Your task to perform on an android device: make emails show in primary in the gmail app Image 0: 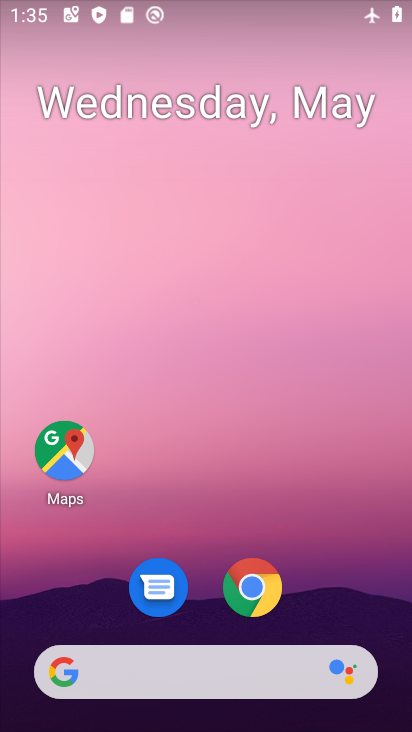
Step 0: drag from (324, 622) to (266, 97)
Your task to perform on an android device: make emails show in primary in the gmail app Image 1: 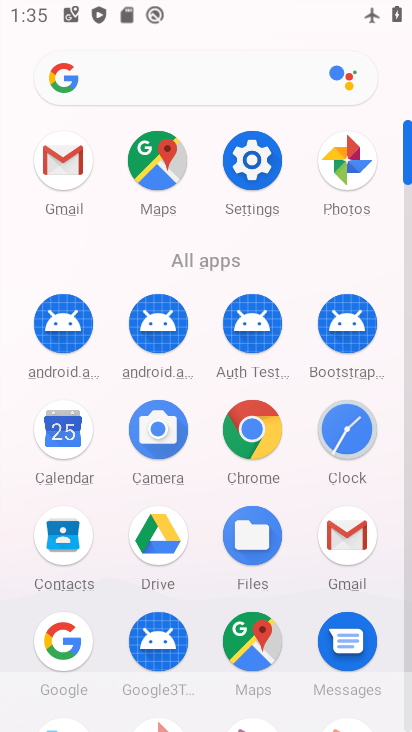
Step 1: click (267, 96)
Your task to perform on an android device: make emails show in primary in the gmail app Image 2: 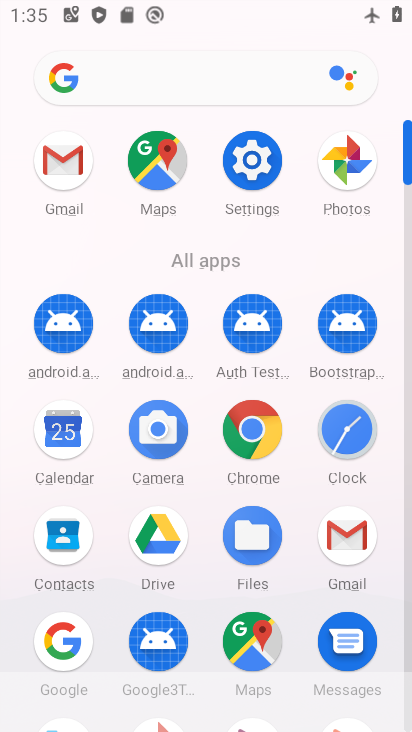
Step 2: click (344, 538)
Your task to perform on an android device: make emails show in primary in the gmail app Image 3: 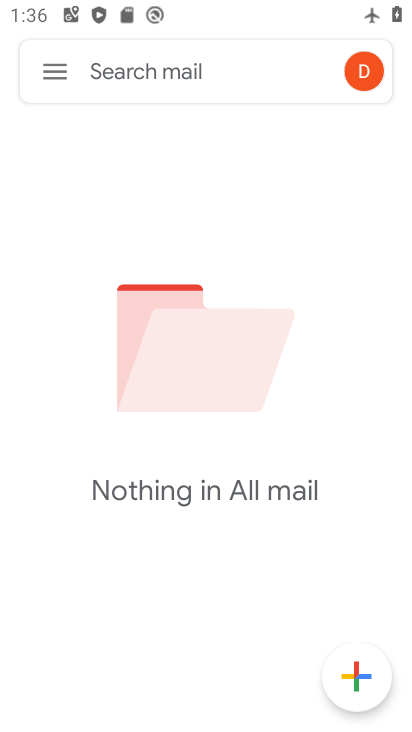
Step 3: click (54, 61)
Your task to perform on an android device: make emails show in primary in the gmail app Image 4: 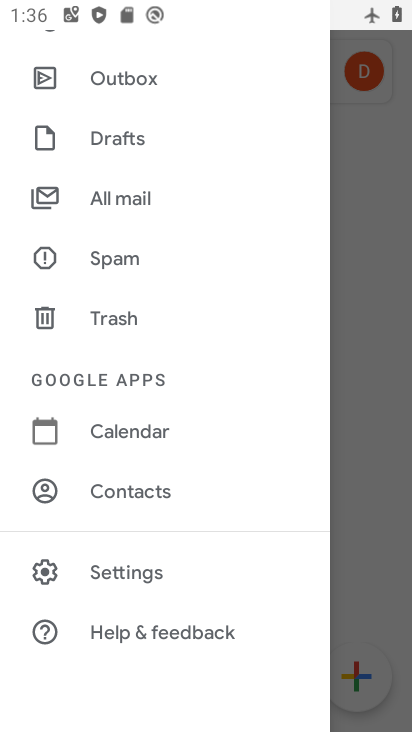
Step 4: click (160, 566)
Your task to perform on an android device: make emails show in primary in the gmail app Image 5: 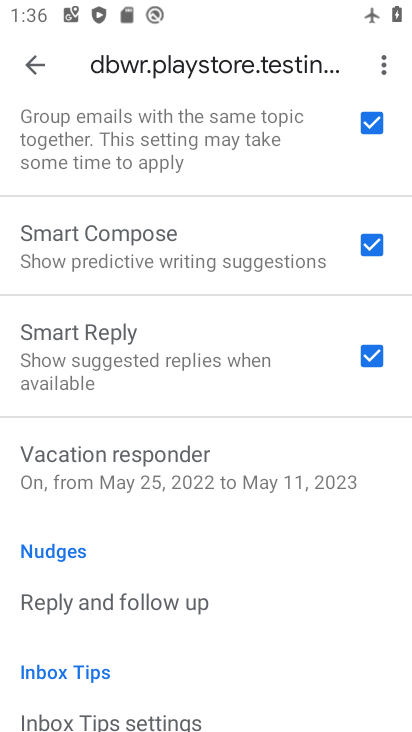
Step 5: drag from (174, 547) to (141, 715)
Your task to perform on an android device: make emails show in primary in the gmail app Image 6: 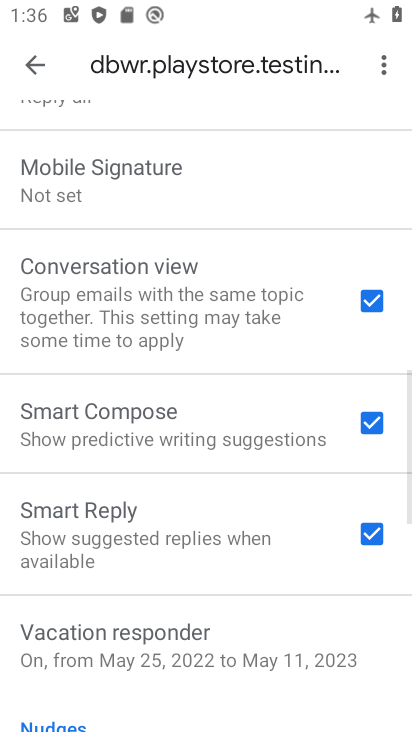
Step 6: drag from (161, 149) to (95, 713)
Your task to perform on an android device: make emails show in primary in the gmail app Image 7: 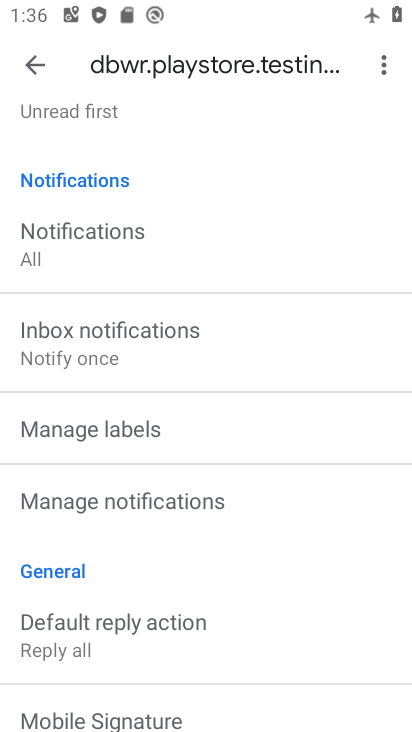
Step 7: drag from (122, 246) to (99, 626)
Your task to perform on an android device: make emails show in primary in the gmail app Image 8: 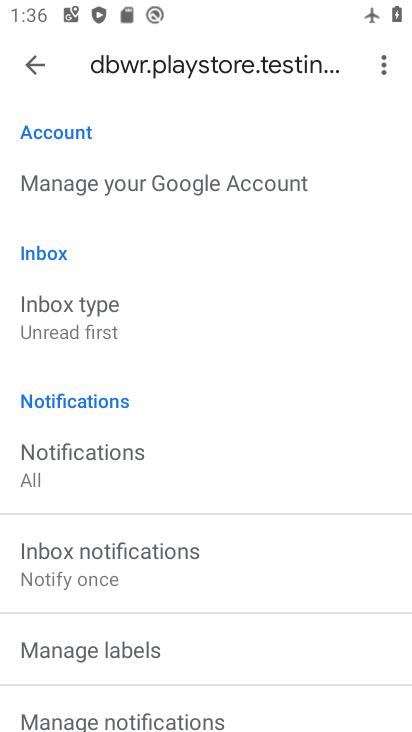
Step 8: click (141, 307)
Your task to perform on an android device: make emails show in primary in the gmail app Image 9: 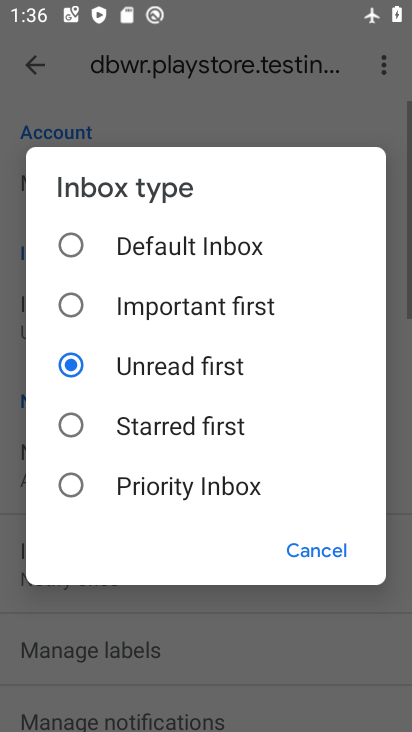
Step 9: click (139, 236)
Your task to perform on an android device: make emails show in primary in the gmail app Image 10: 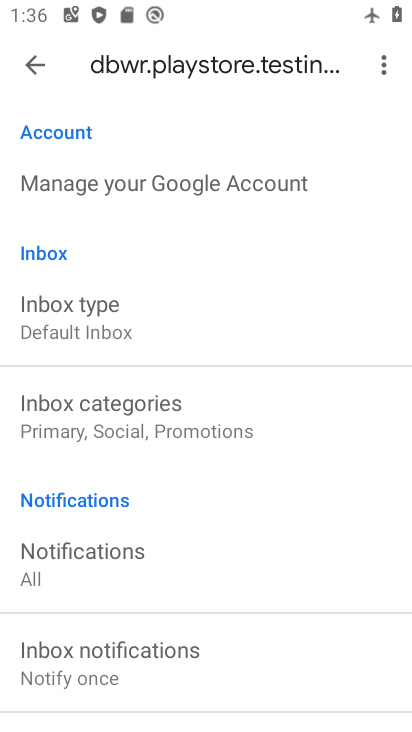
Step 10: click (113, 414)
Your task to perform on an android device: make emails show in primary in the gmail app Image 11: 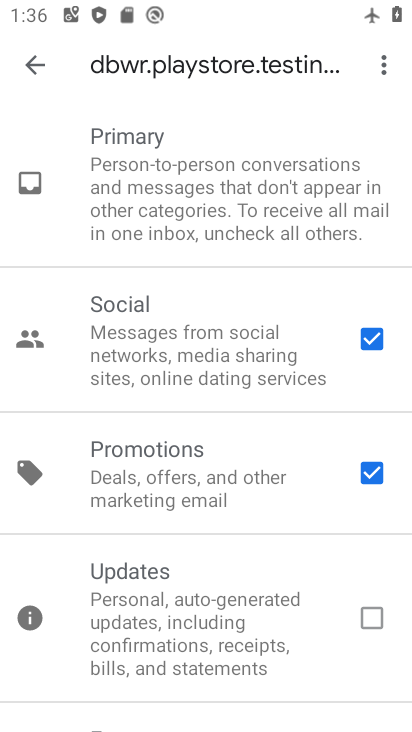
Step 11: click (372, 346)
Your task to perform on an android device: make emails show in primary in the gmail app Image 12: 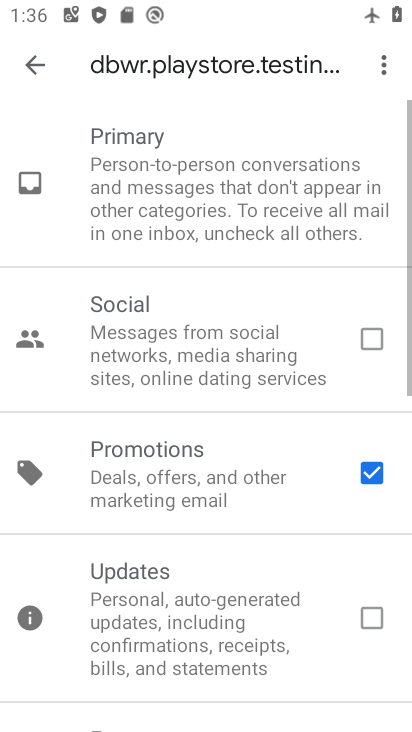
Step 12: click (375, 471)
Your task to perform on an android device: make emails show in primary in the gmail app Image 13: 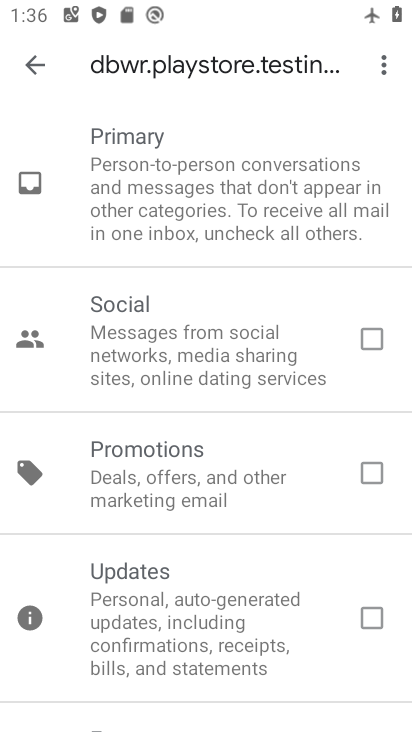
Step 13: task complete